Your task to perform on an android device: install app "LiveIn - Share Your Moment" Image 0: 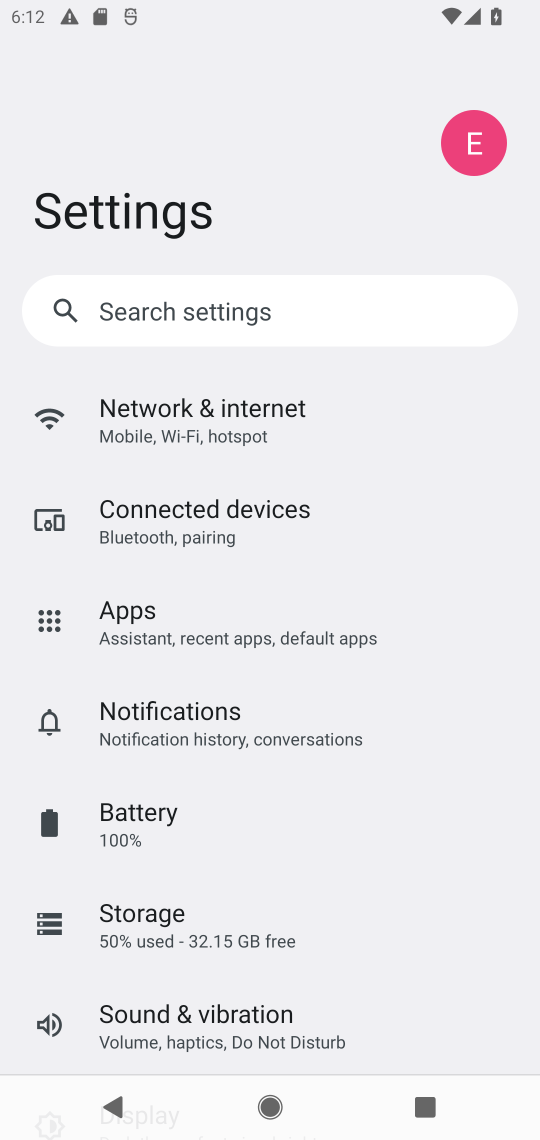
Step 0: press home button
Your task to perform on an android device: install app "LiveIn - Share Your Moment" Image 1: 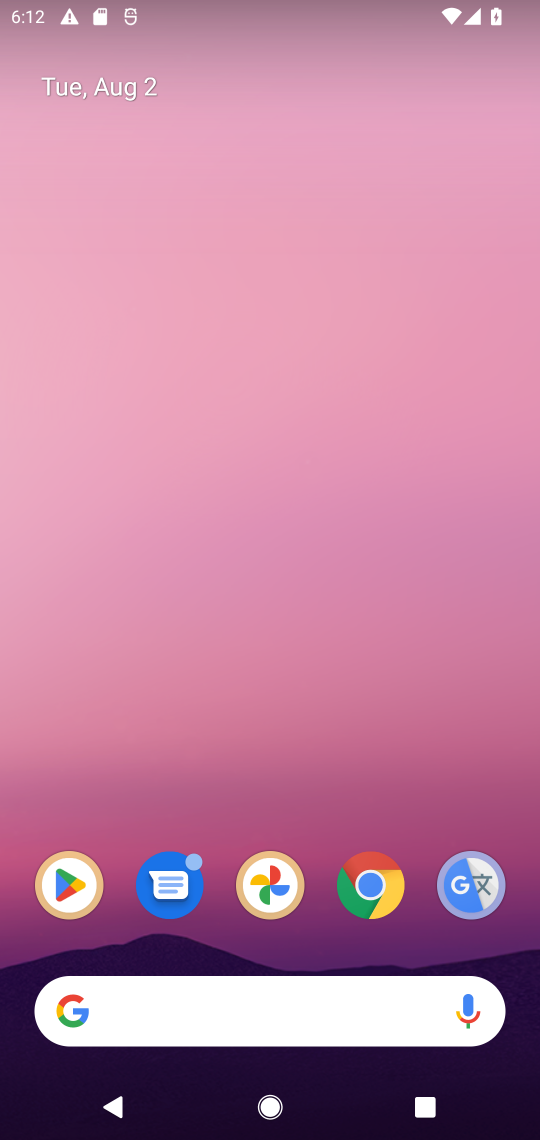
Step 1: drag from (432, 744) to (358, 69)
Your task to perform on an android device: install app "LiveIn - Share Your Moment" Image 2: 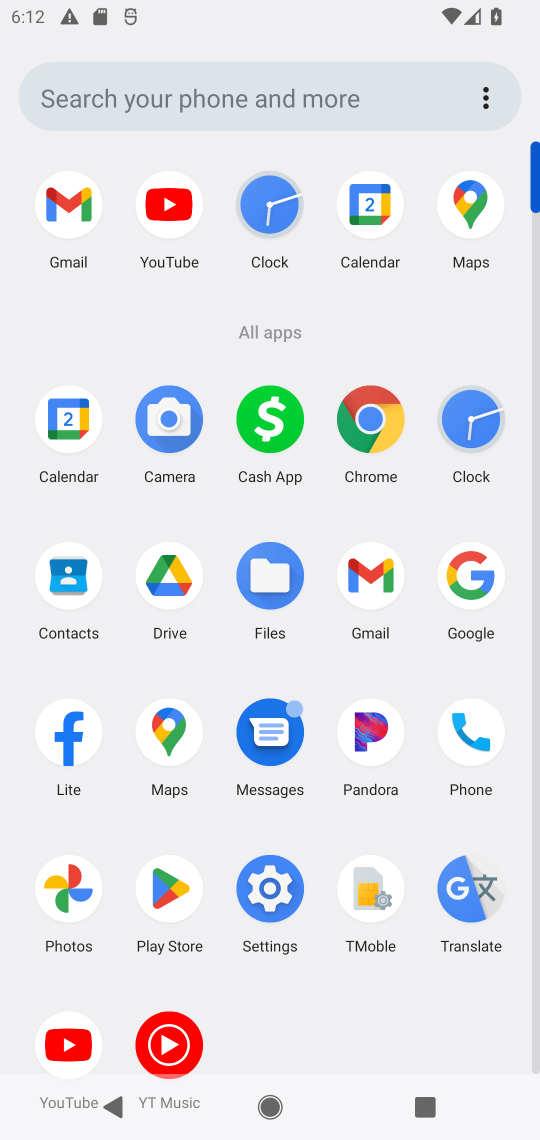
Step 2: click (169, 898)
Your task to perform on an android device: install app "LiveIn - Share Your Moment" Image 3: 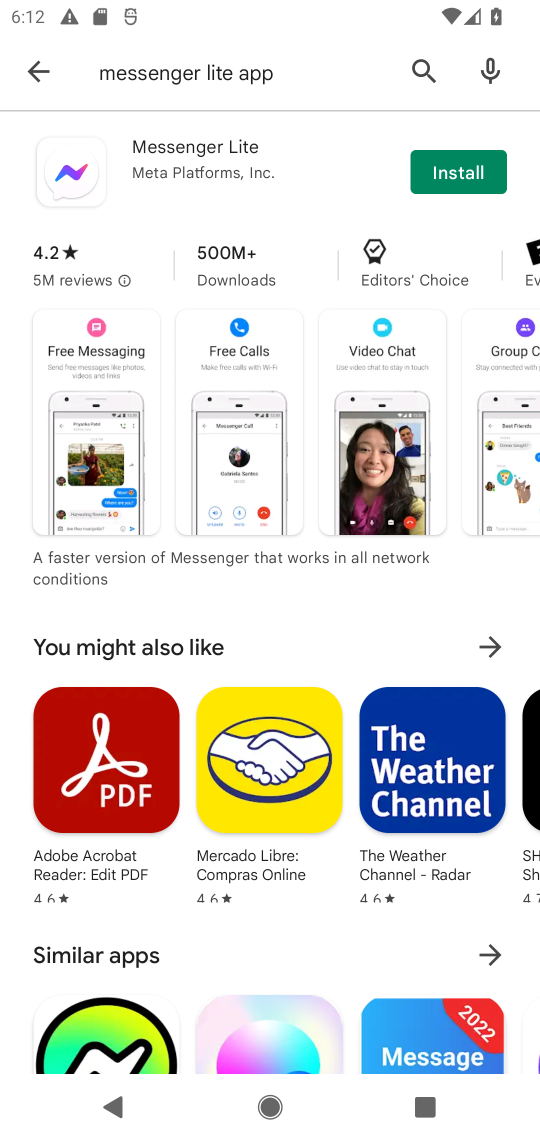
Step 3: click (422, 58)
Your task to perform on an android device: install app "LiveIn - Share Your Moment" Image 4: 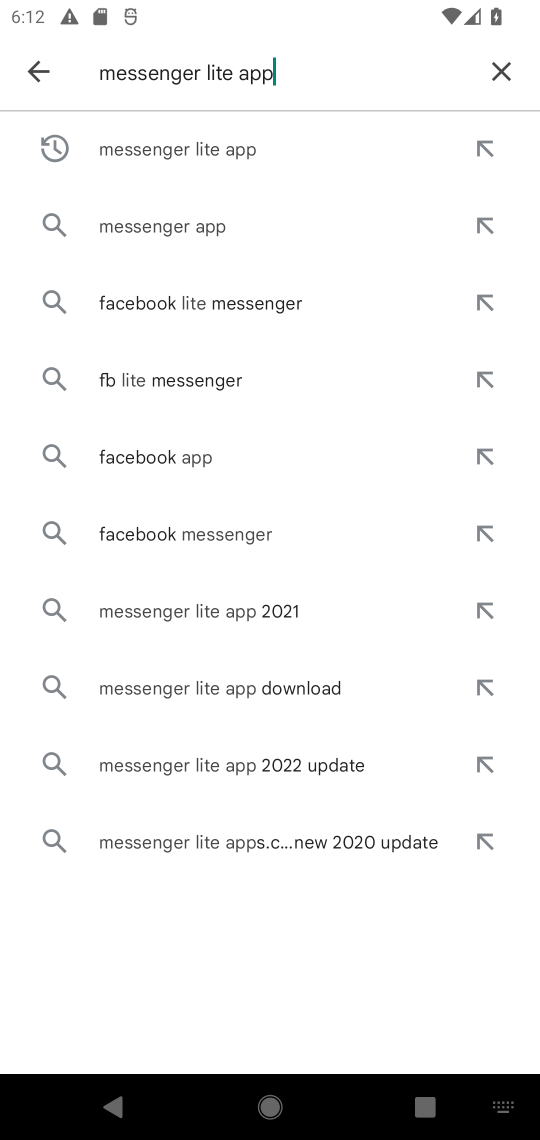
Step 4: click (479, 74)
Your task to perform on an android device: install app "LiveIn - Share Your Moment" Image 5: 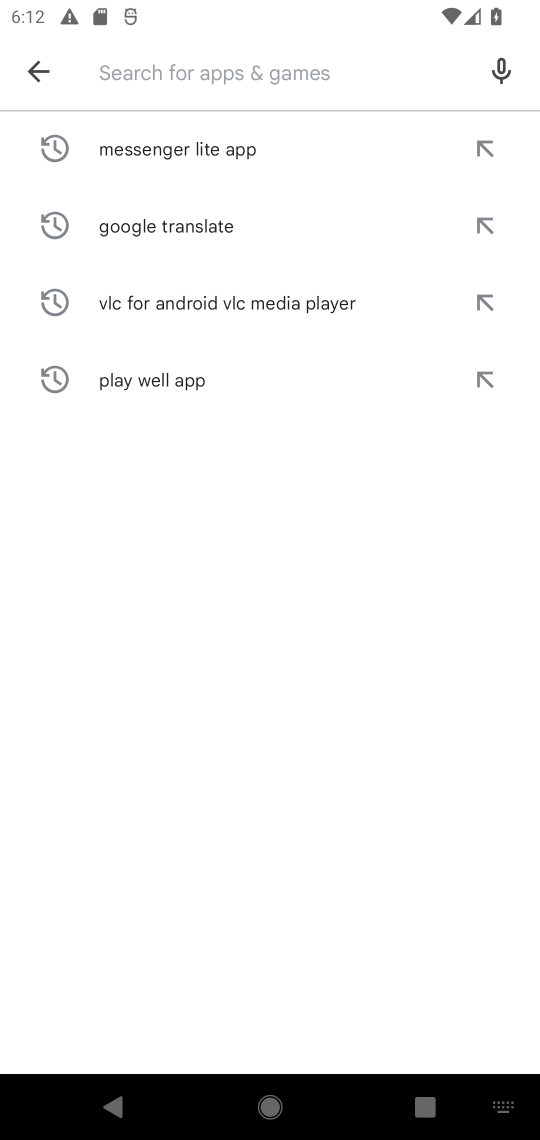
Step 5: click (333, 64)
Your task to perform on an android device: install app "LiveIn - Share Your Moment" Image 6: 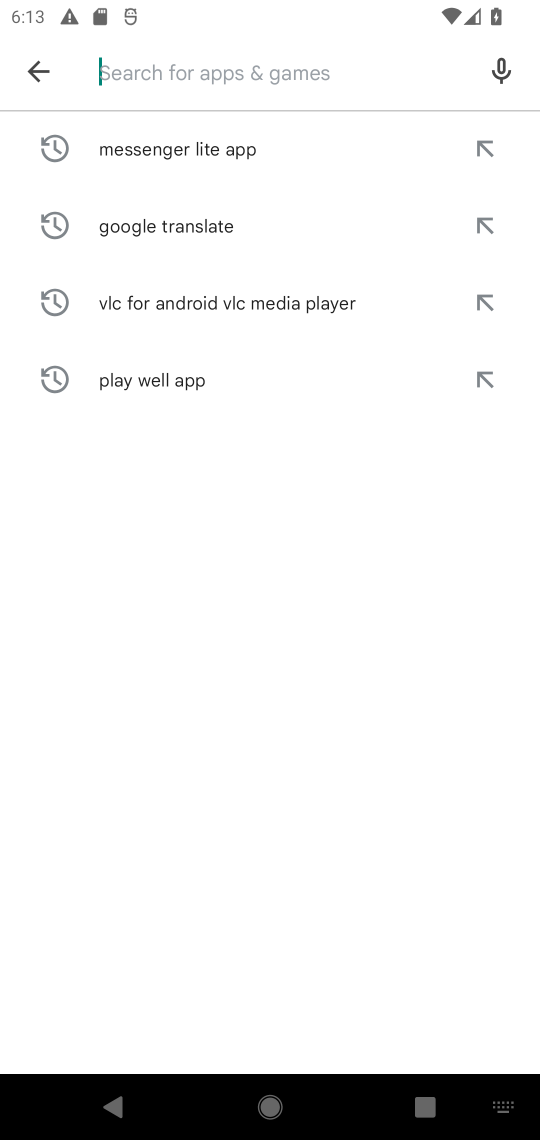
Step 6: type "LiveIn - Share Your Moment"
Your task to perform on an android device: install app "LiveIn - Share Your Moment" Image 7: 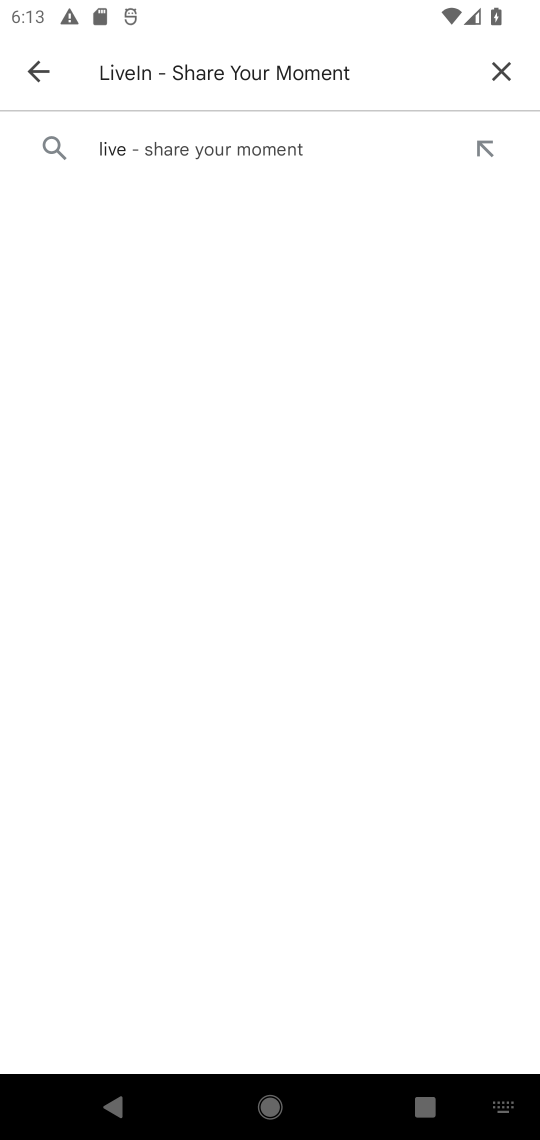
Step 7: task complete